Your task to perform on an android device: stop showing notifications on the lock screen Image 0: 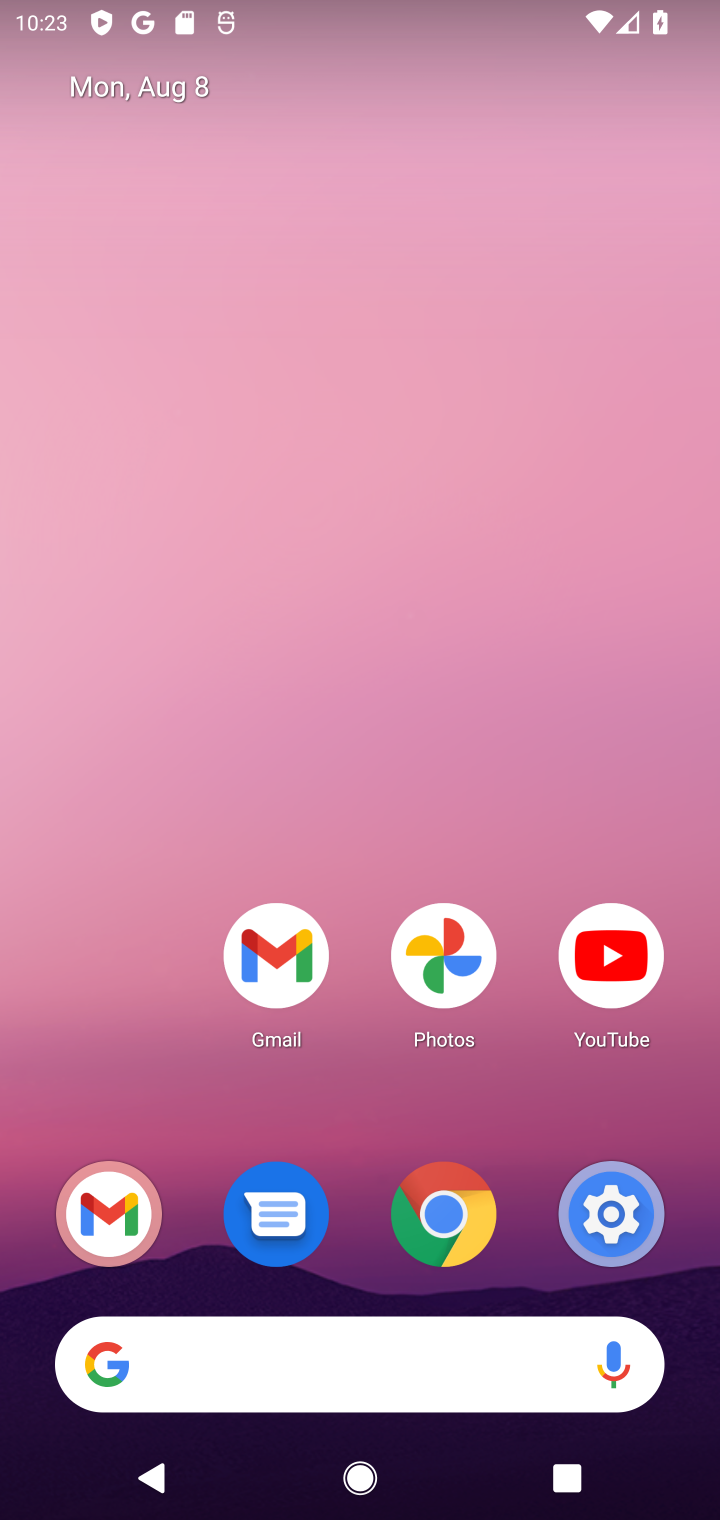
Step 0: click (618, 1195)
Your task to perform on an android device: stop showing notifications on the lock screen Image 1: 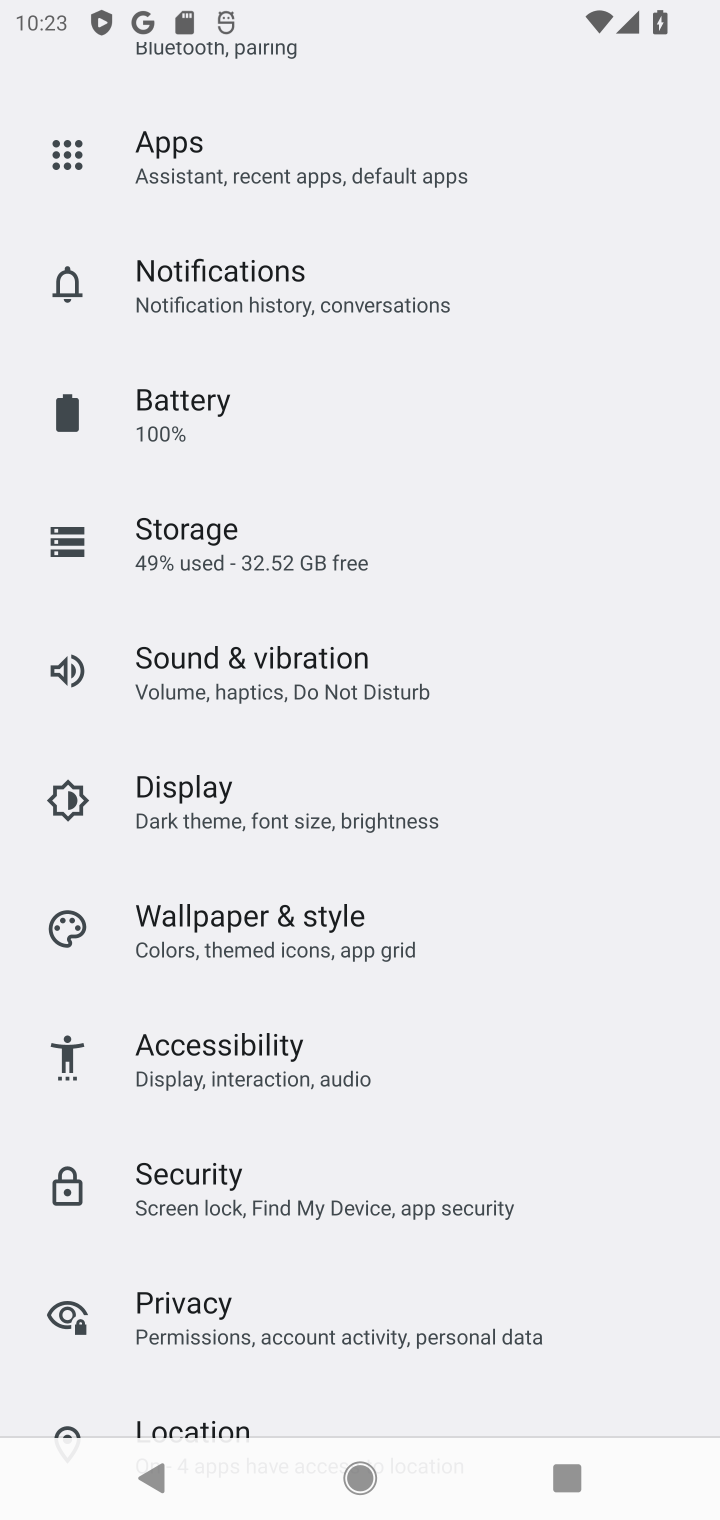
Step 1: click (205, 284)
Your task to perform on an android device: stop showing notifications on the lock screen Image 2: 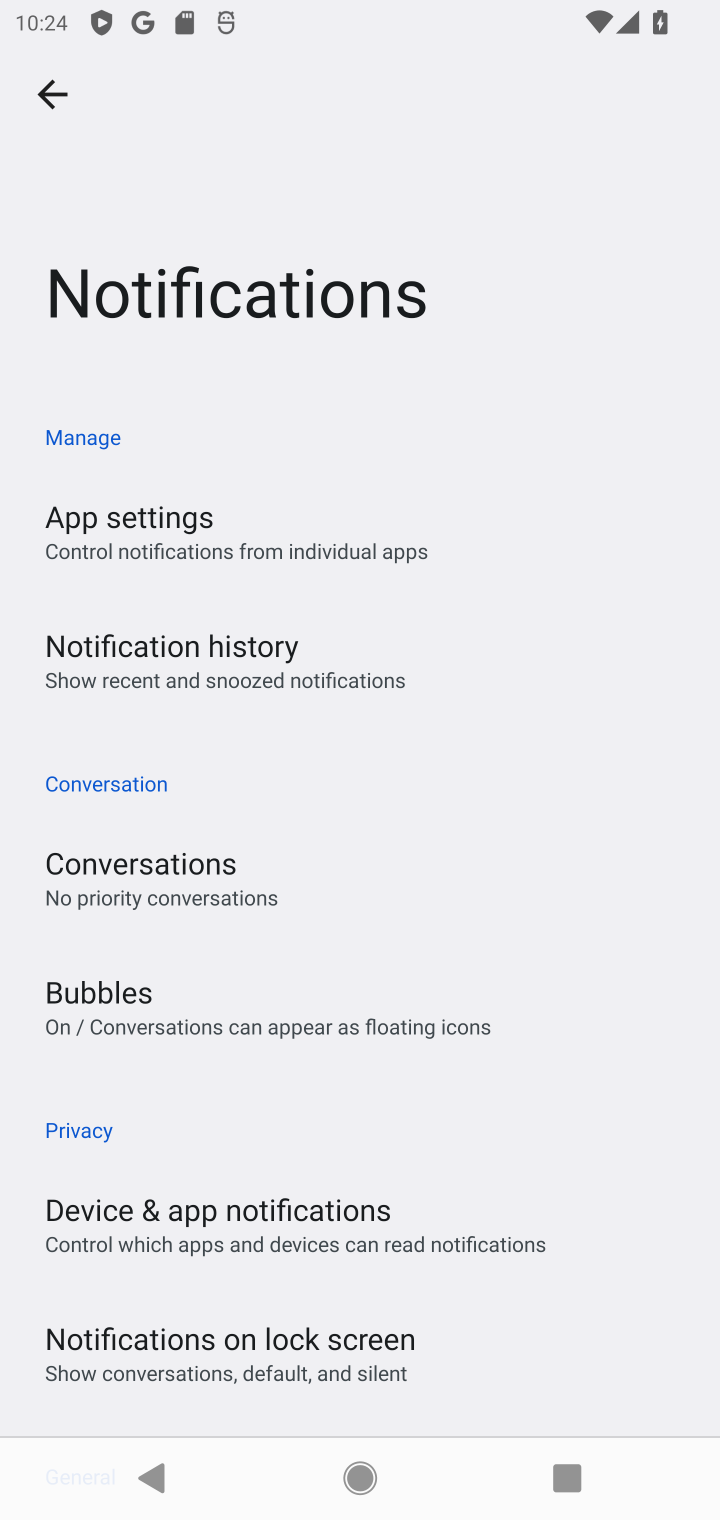
Step 2: click (181, 1346)
Your task to perform on an android device: stop showing notifications on the lock screen Image 3: 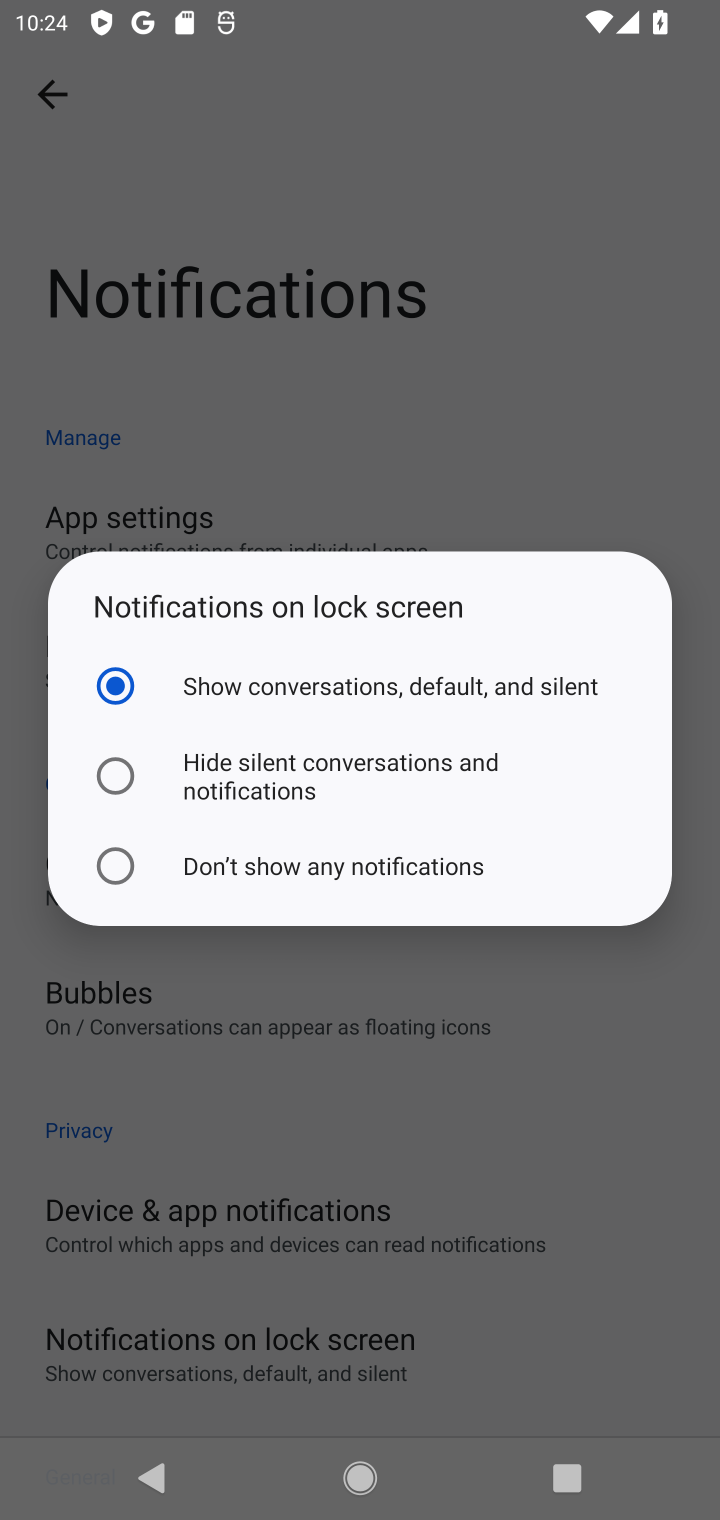
Step 3: click (111, 874)
Your task to perform on an android device: stop showing notifications on the lock screen Image 4: 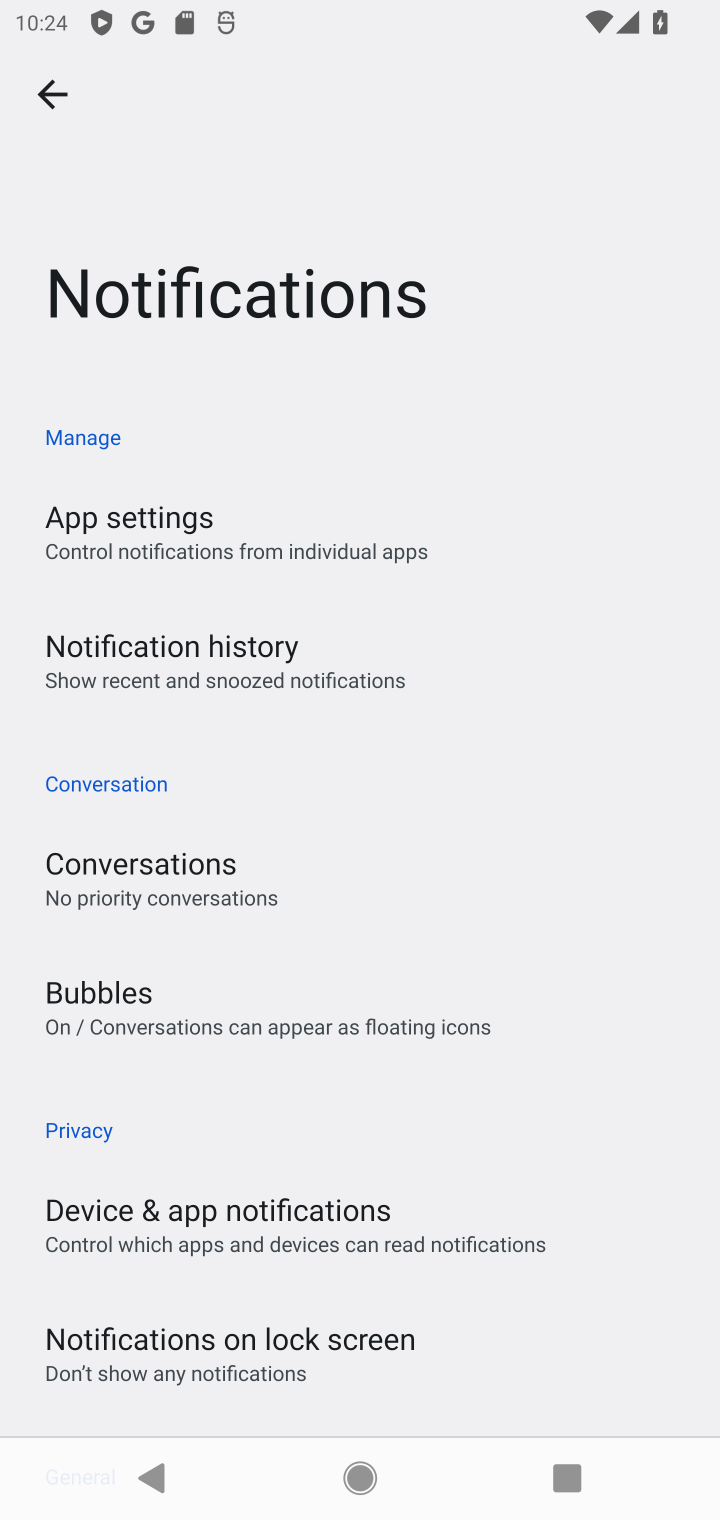
Step 4: task complete